Your task to perform on an android device: open wifi settings Image 0: 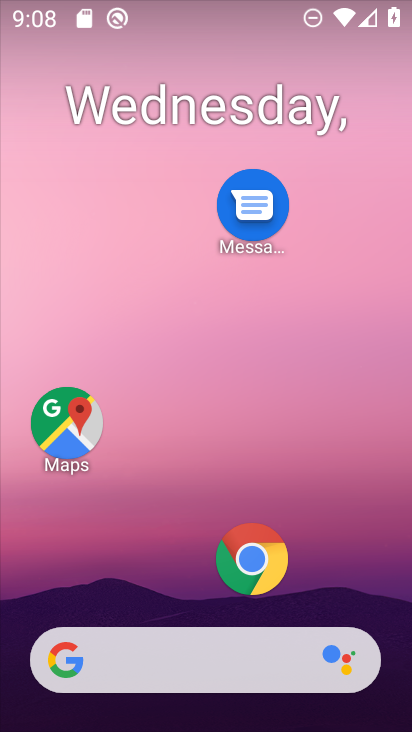
Step 0: drag from (273, 651) to (205, 60)
Your task to perform on an android device: open wifi settings Image 1: 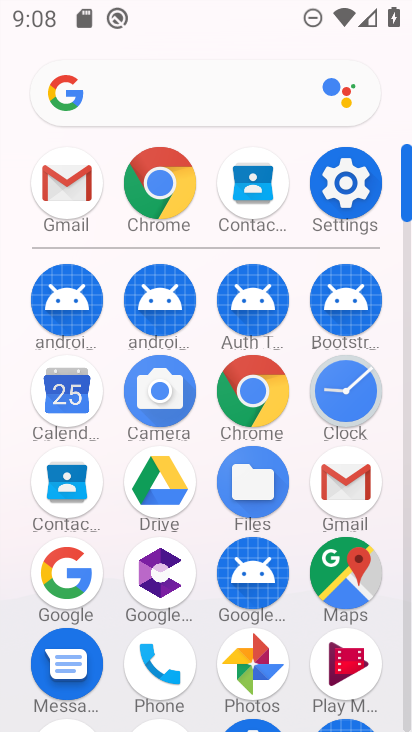
Step 1: click (359, 207)
Your task to perform on an android device: open wifi settings Image 2: 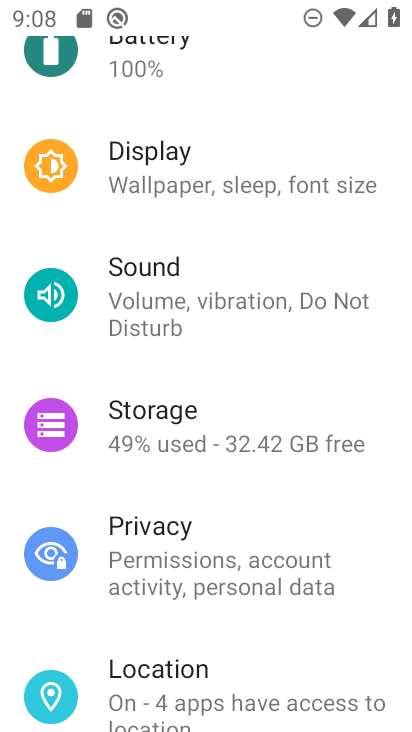
Step 2: drag from (219, 243) to (294, 635)
Your task to perform on an android device: open wifi settings Image 3: 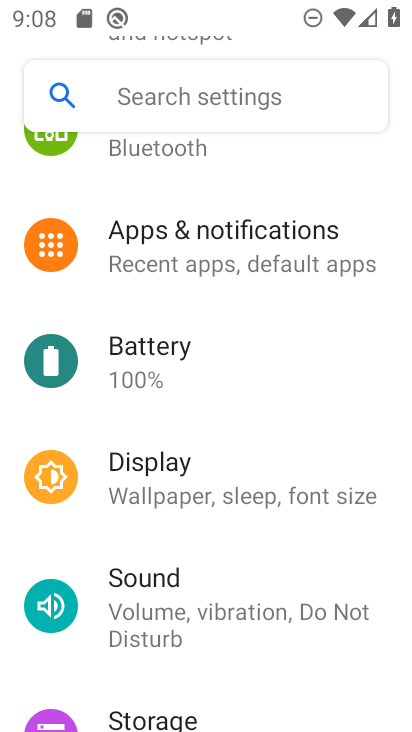
Step 3: drag from (221, 550) to (220, 235)
Your task to perform on an android device: open wifi settings Image 4: 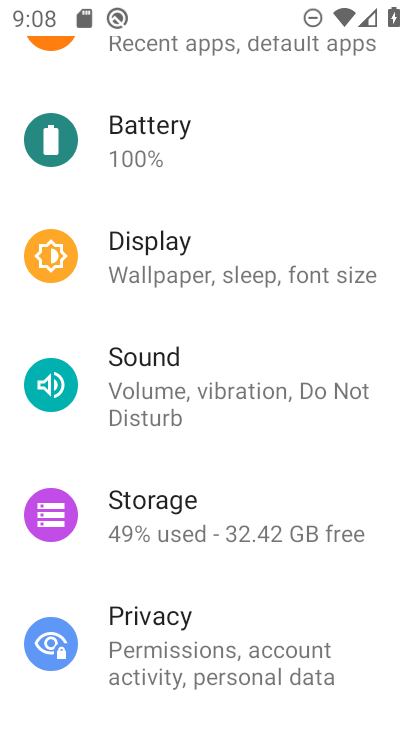
Step 4: drag from (224, 219) to (318, 723)
Your task to perform on an android device: open wifi settings Image 5: 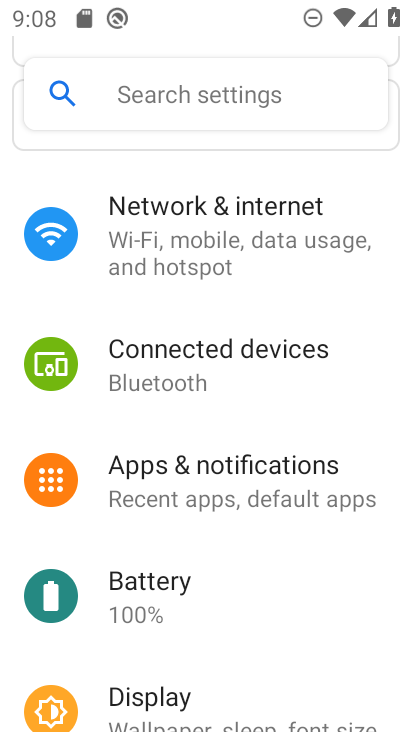
Step 5: drag from (192, 402) to (246, 726)
Your task to perform on an android device: open wifi settings Image 6: 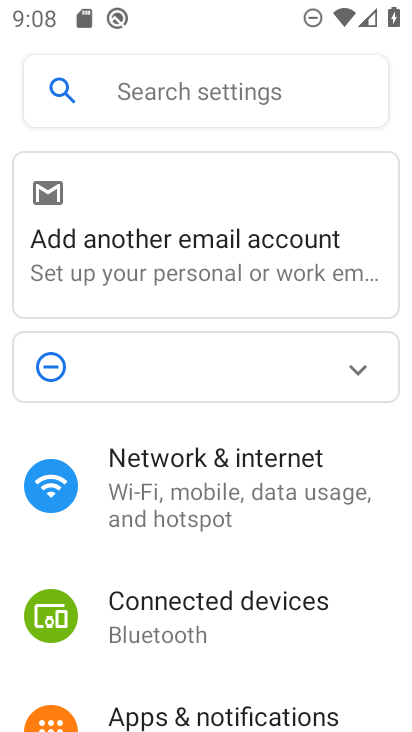
Step 6: click (222, 487)
Your task to perform on an android device: open wifi settings Image 7: 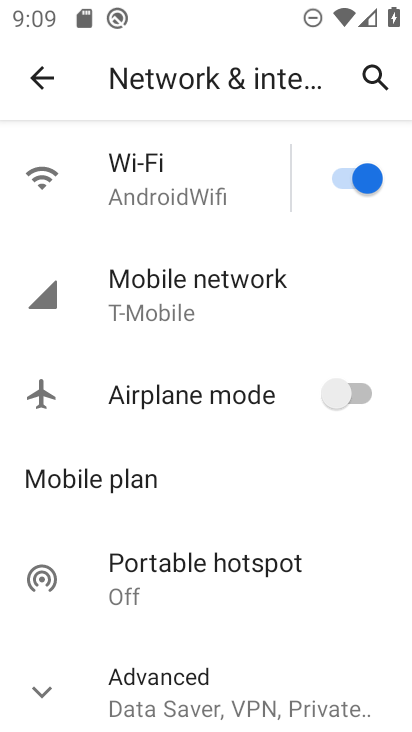
Step 7: click (185, 206)
Your task to perform on an android device: open wifi settings Image 8: 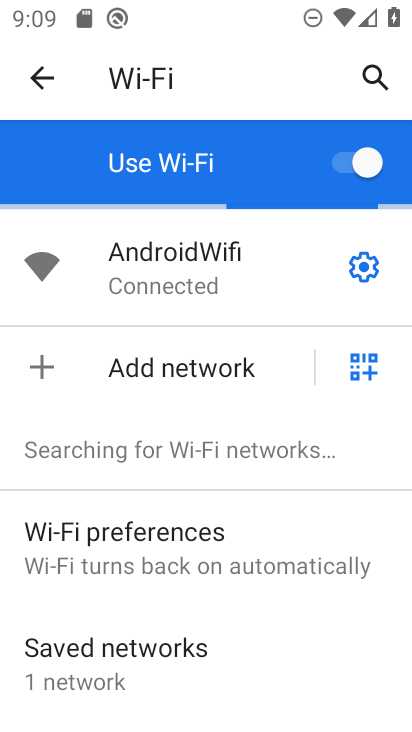
Step 8: task complete